Your task to perform on an android device: open chrome privacy settings Image 0: 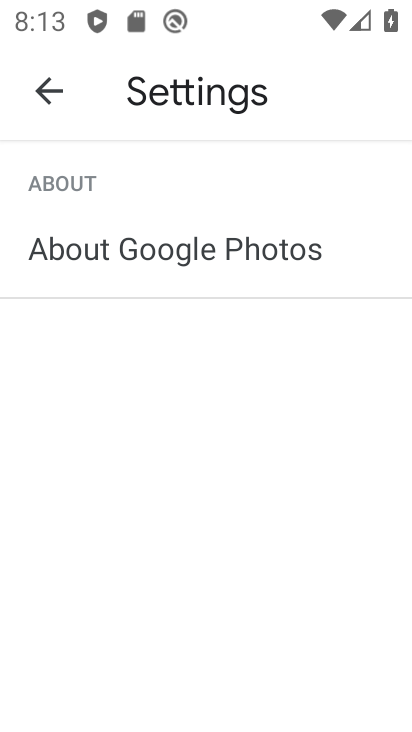
Step 0: press home button
Your task to perform on an android device: open chrome privacy settings Image 1: 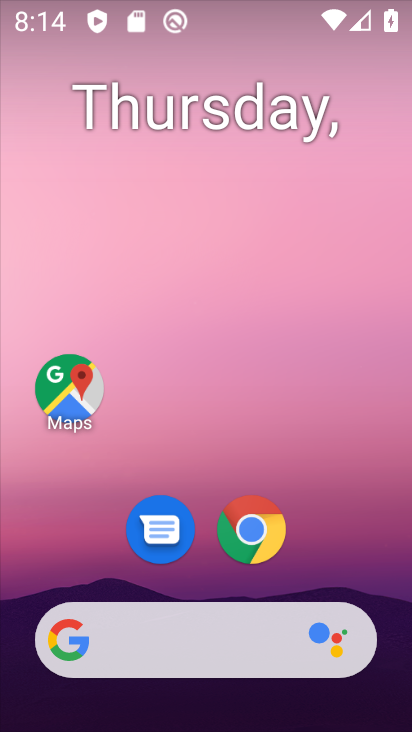
Step 1: drag from (209, 638) to (368, 130)
Your task to perform on an android device: open chrome privacy settings Image 2: 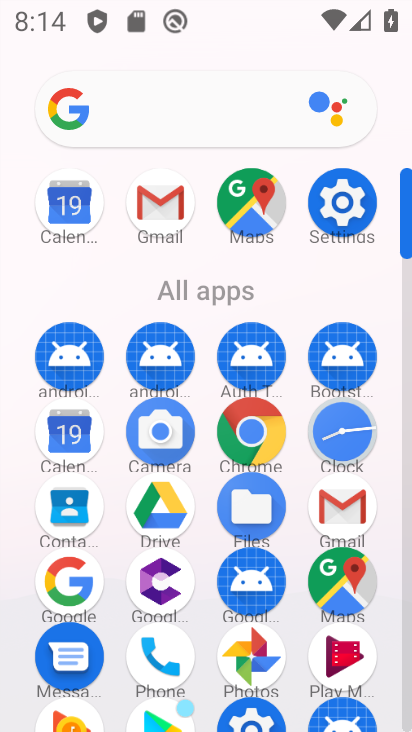
Step 2: click (350, 208)
Your task to perform on an android device: open chrome privacy settings Image 3: 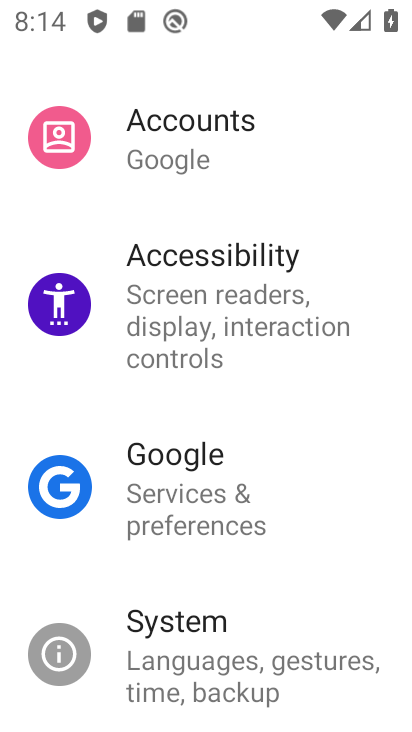
Step 3: drag from (283, 599) to (405, 146)
Your task to perform on an android device: open chrome privacy settings Image 4: 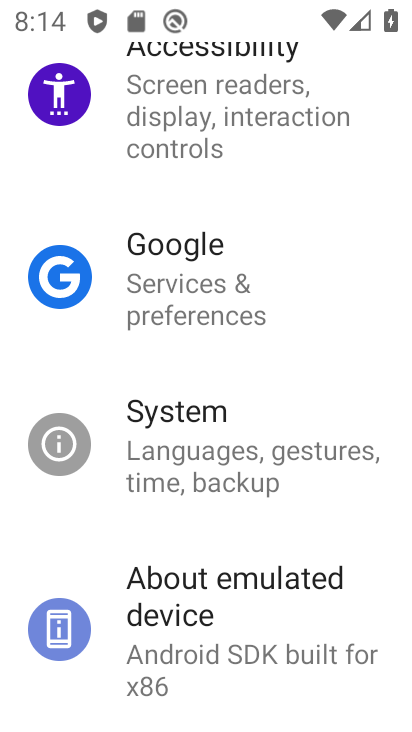
Step 4: drag from (353, 170) to (239, 640)
Your task to perform on an android device: open chrome privacy settings Image 5: 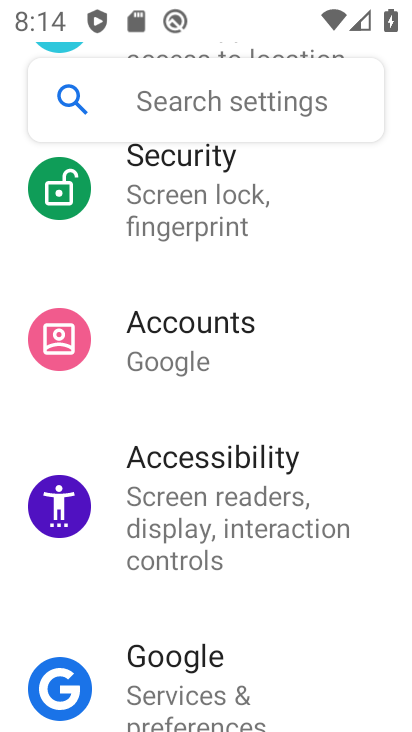
Step 5: drag from (302, 284) to (209, 721)
Your task to perform on an android device: open chrome privacy settings Image 6: 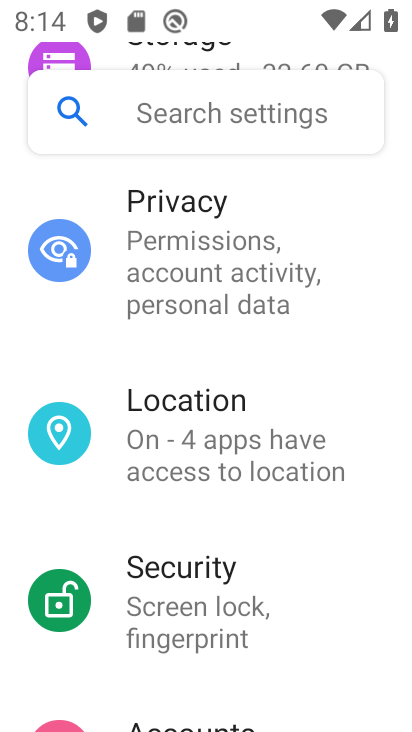
Step 6: click (183, 207)
Your task to perform on an android device: open chrome privacy settings Image 7: 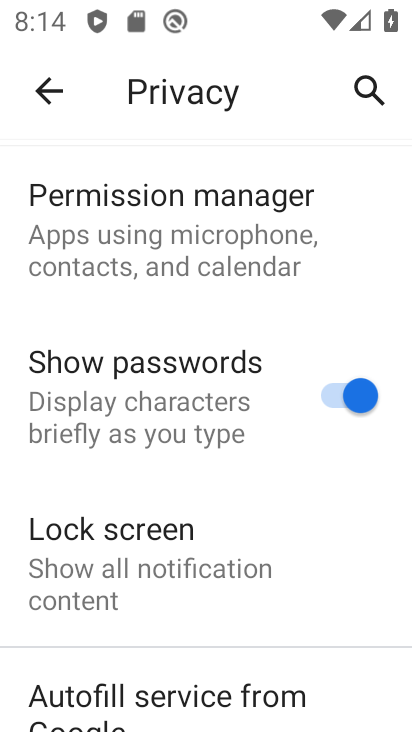
Step 7: task complete